Your task to perform on an android device: change text size in settings app Image 0: 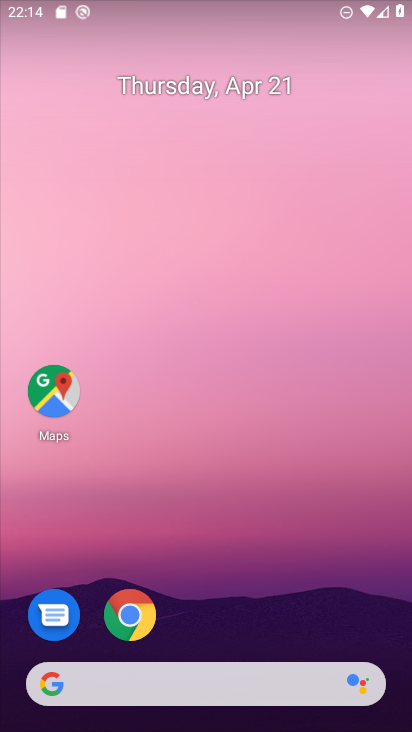
Step 0: drag from (212, 648) to (270, 49)
Your task to perform on an android device: change text size in settings app Image 1: 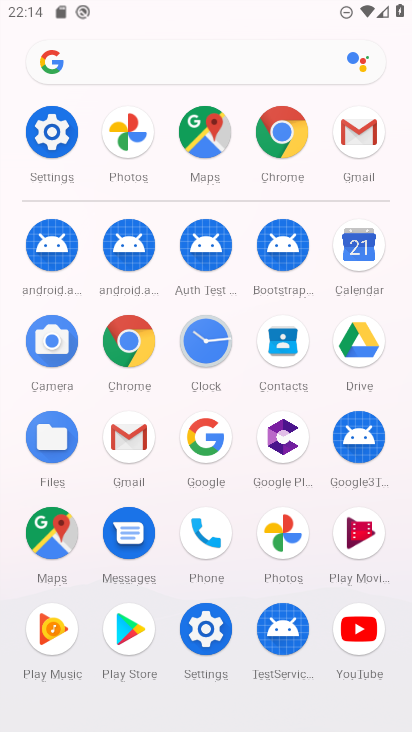
Step 1: click (214, 626)
Your task to perform on an android device: change text size in settings app Image 2: 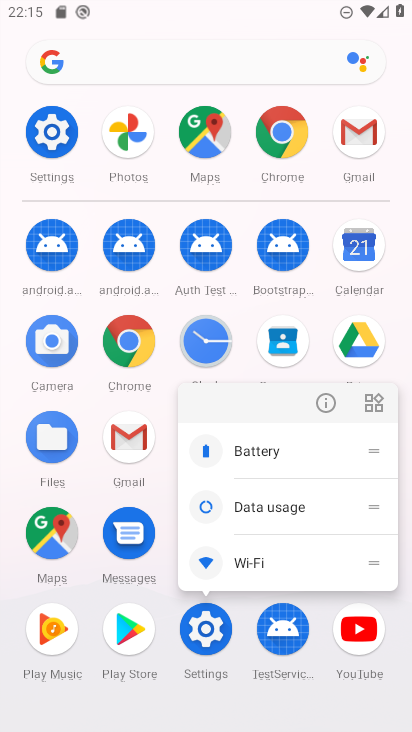
Step 2: click (330, 401)
Your task to perform on an android device: change text size in settings app Image 3: 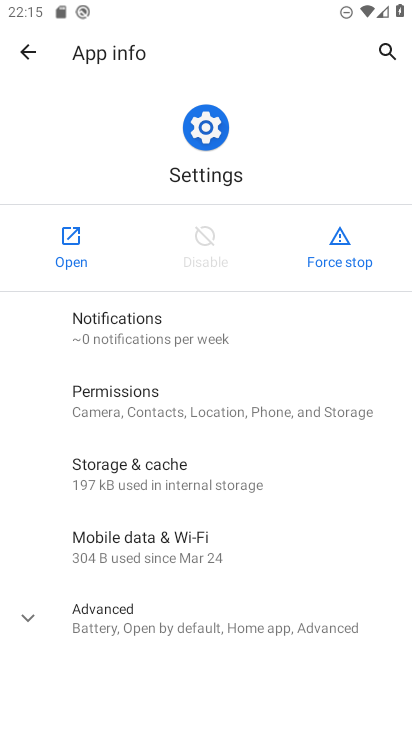
Step 3: click (76, 236)
Your task to perform on an android device: change text size in settings app Image 4: 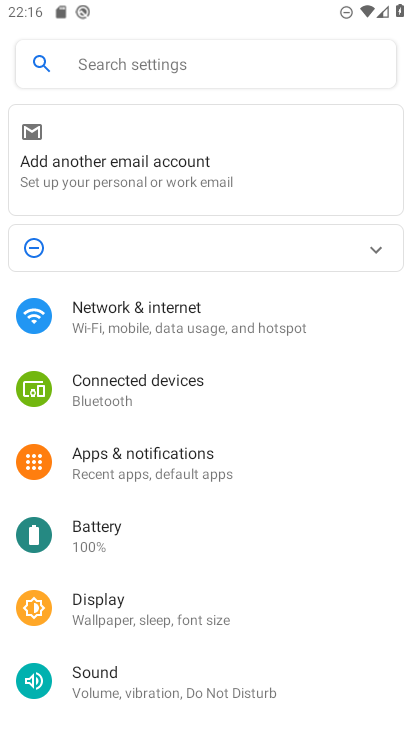
Step 4: click (138, 585)
Your task to perform on an android device: change text size in settings app Image 5: 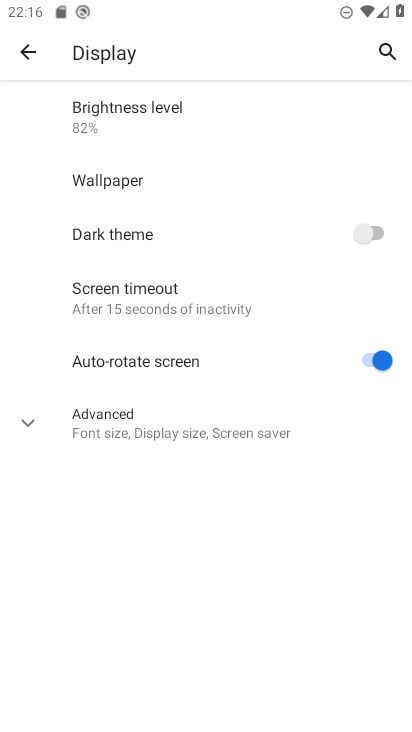
Step 5: click (145, 401)
Your task to perform on an android device: change text size in settings app Image 6: 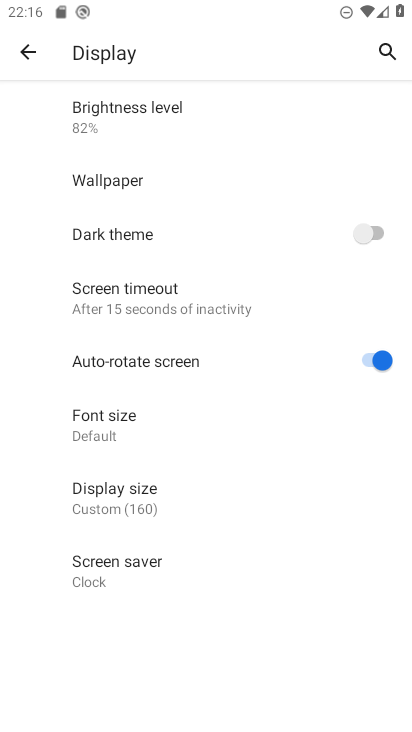
Step 6: click (174, 415)
Your task to perform on an android device: change text size in settings app Image 7: 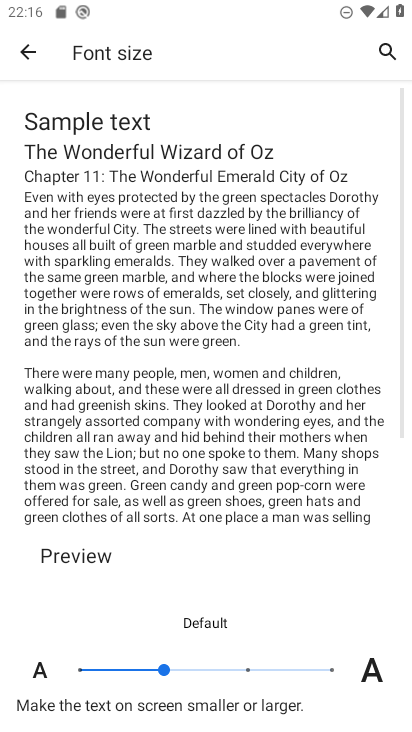
Step 7: drag from (238, 582) to (342, 87)
Your task to perform on an android device: change text size in settings app Image 8: 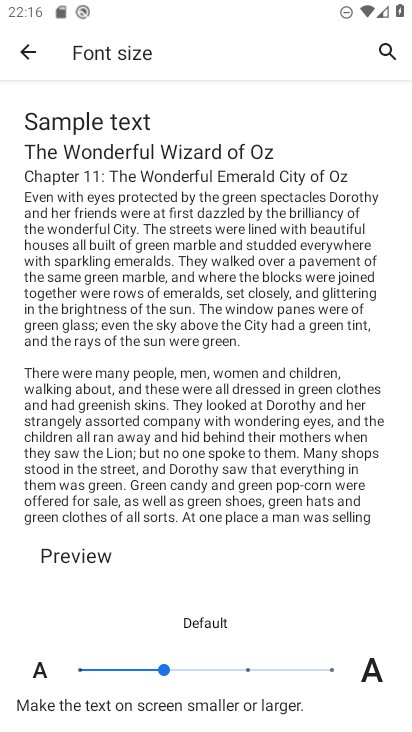
Step 8: click (239, 675)
Your task to perform on an android device: change text size in settings app Image 9: 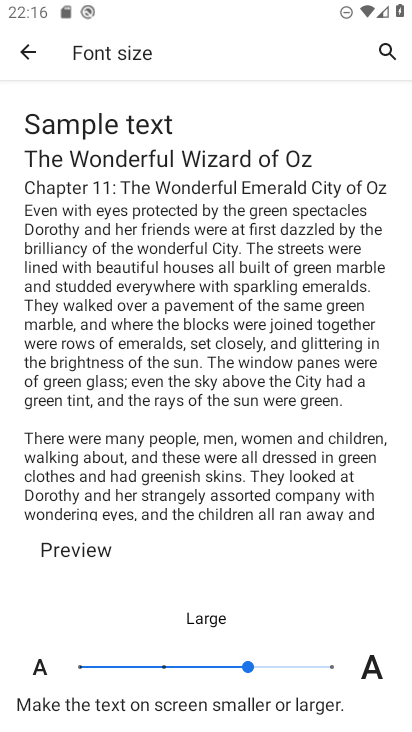
Step 9: task complete